Your task to perform on an android device: turn on improve location accuracy Image 0: 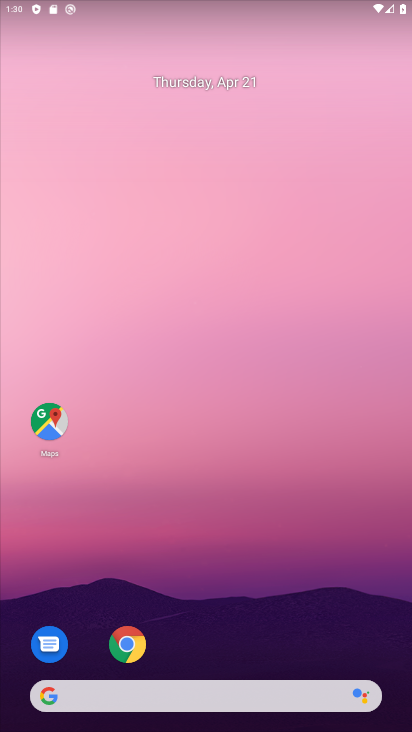
Step 0: drag from (232, 617) to (232, 196)
Your task to perform on an android device: turn on improve location accuracy Image 1: 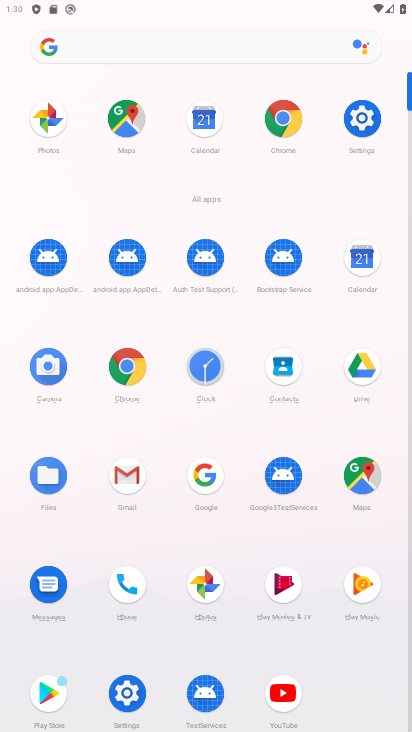
Step 1: click (358, 135)
Your task to perform on an android device: turn on improve location accuracy Image 2: 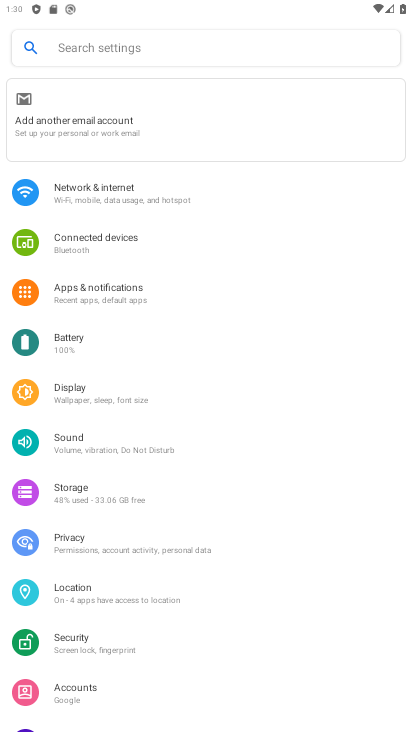
Step 2: click (201, 588)
Your task to perform on an android device: turn on improve location accuracy Image 3: 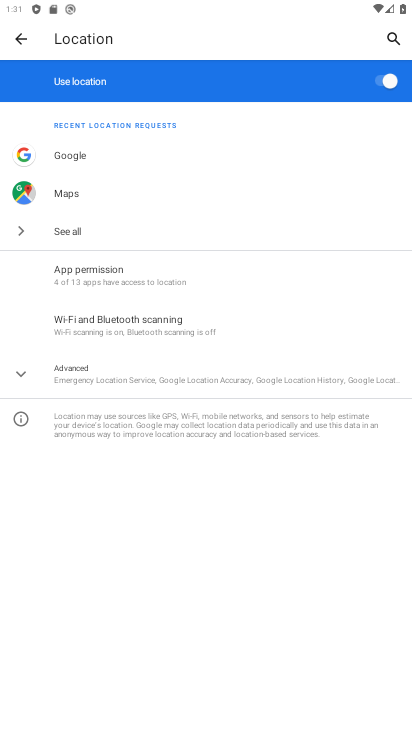
Step 3: click (193, 375)
Your task to perform on an android device: turn on improve location accuracy Image 4: 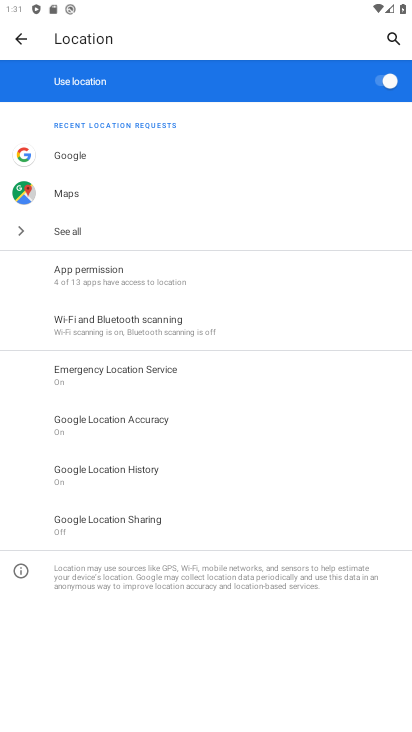
Step 4: click (175, 428)
Your task to perform on an android device: turn on improve location accuracy Image 5: 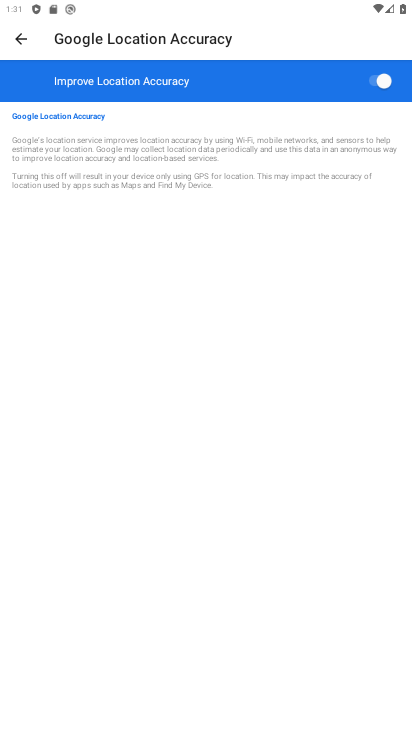
Step 5: task complete